Your task to perform on an android device: Open Google Maps and go to "Timeline" Image 0: 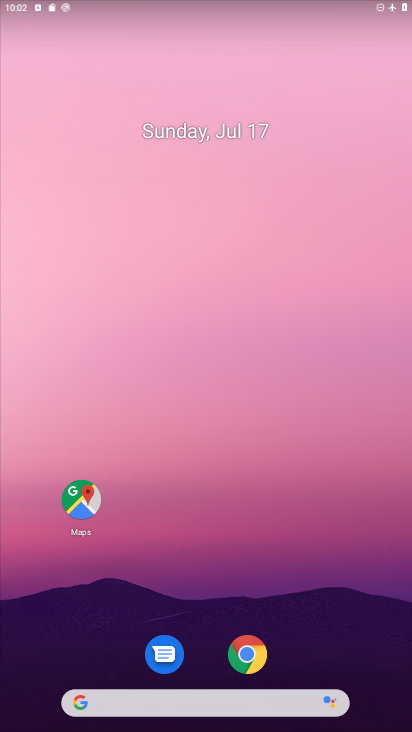
Step 0: click (77, 518)
Your task to perform on an android device: Open Google Maps and go to "Timeline" Image 1: 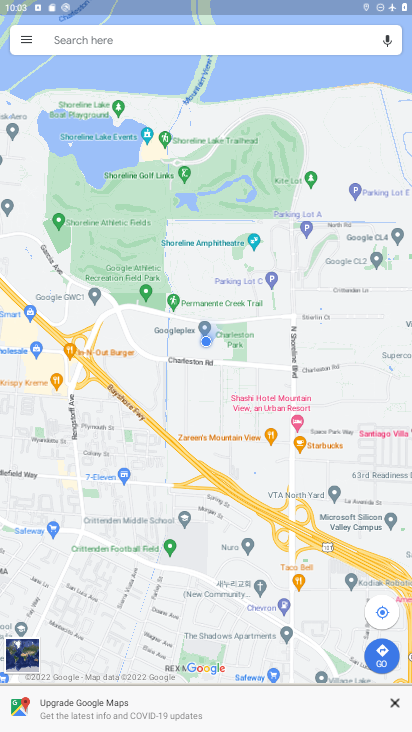
Step 1: click (19, 30)
Your task to perform on an android device: Open Google Maps and go to "Timeline" Image 2: 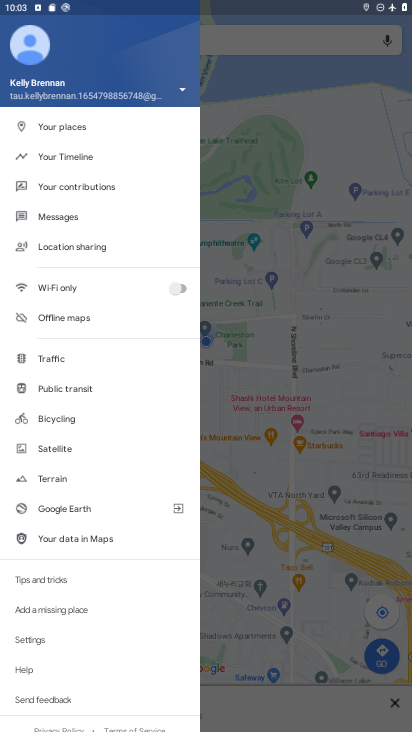
Step 2: click (66, 158)
Your task to perform on an android device: Open Google Maps and go to "Timeline" Image 3: 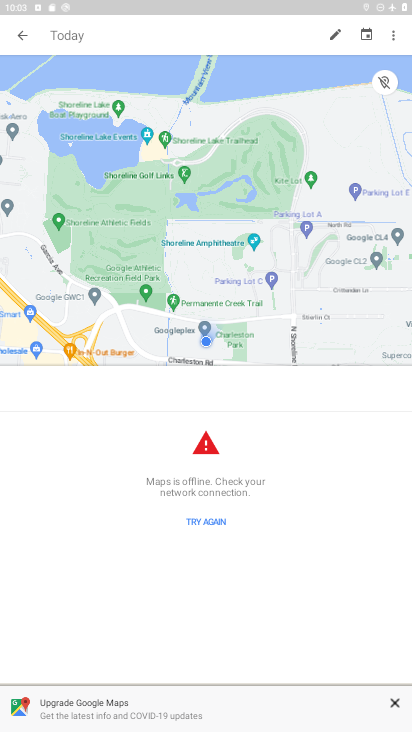
Step 3: task complete